Your task to perform on an android device: turn on the 24-hour format for clock Image 0: 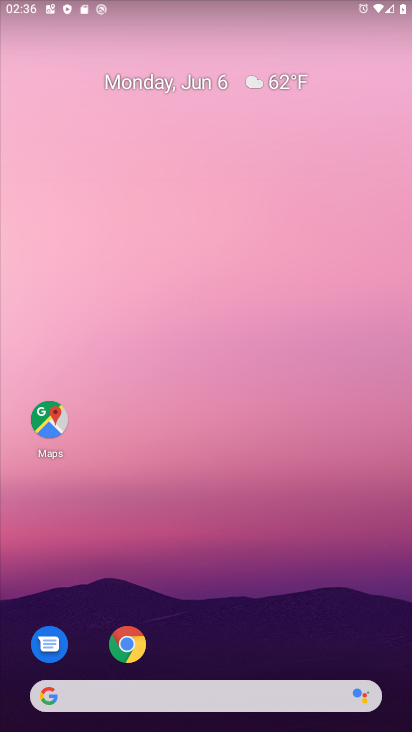
Step 0: drag from (144, 720) to (120, 20)
Your task to perform on an android device: turn on the 24-hour format for clock Image 1: 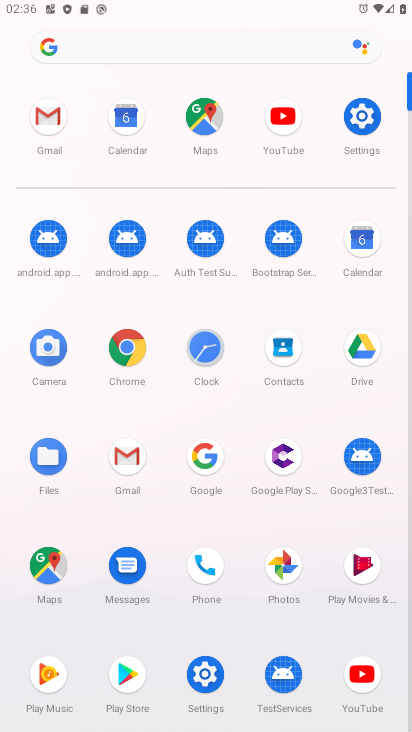
Step 1: click (213, 683)
Your task to perform on an android device: turn on the 24-hour format for clock Image 2: 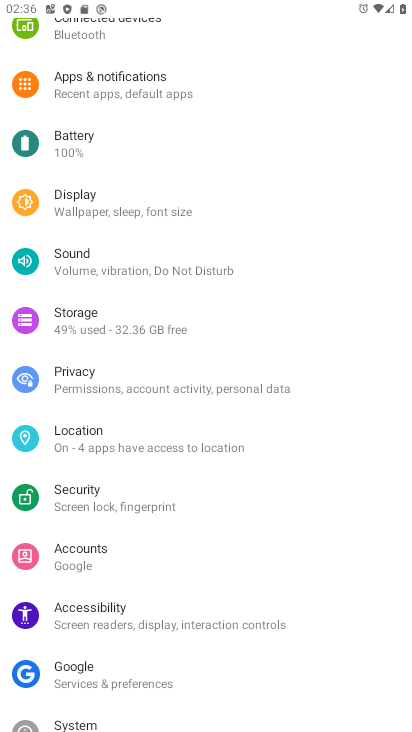
Step 2: drag from (212, 690) to (243, 394)
Your task to perform on an android device: turn on the 24-hour format for clock Image 3: 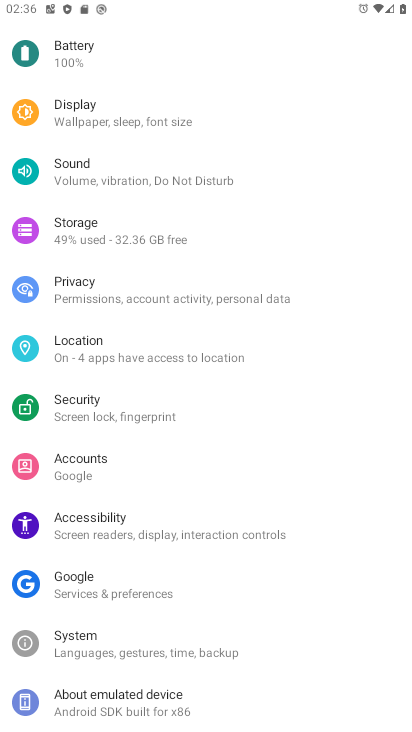
Step 3: click (192, 652)
Your task to perform on an android device: turn on the 24-hour format for clock Image 4: 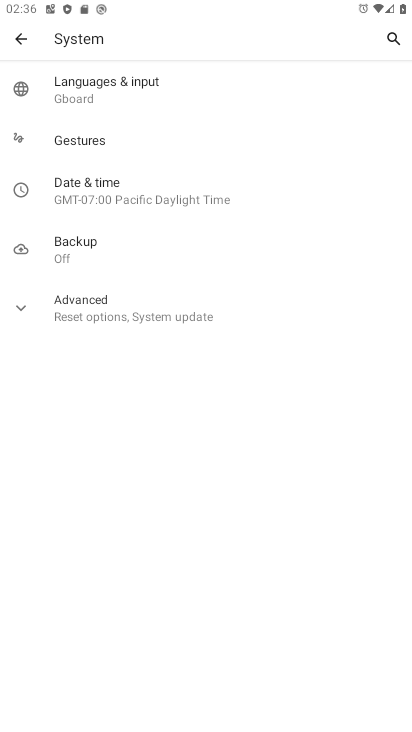
Step 4: click (130, 202)
Your task to perform on an android device: turn on the 24-hour format for clock Image 5: 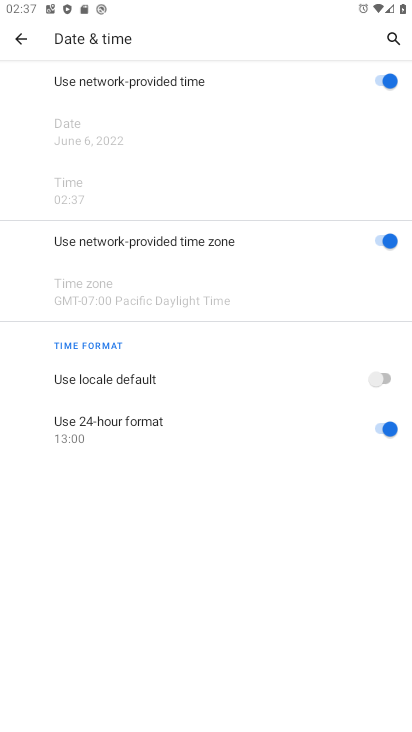
Step 5: task complete